Your task to perform on an android device: Go to Maps Image 0: 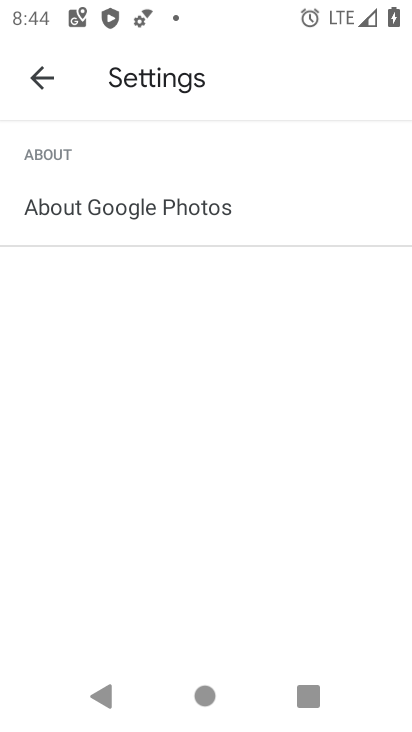
Step 0: press back button
Your task to perform on an android device: Go to Maps Image 1: 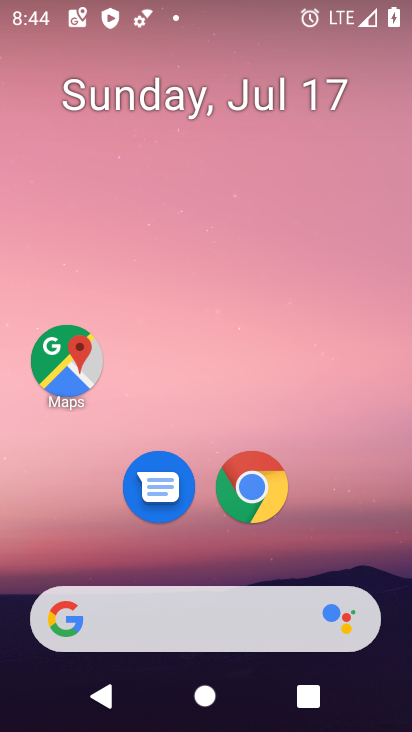
Step 1: click (59, 351)
Your task to perform on an android device: Go to Maps Image 2: 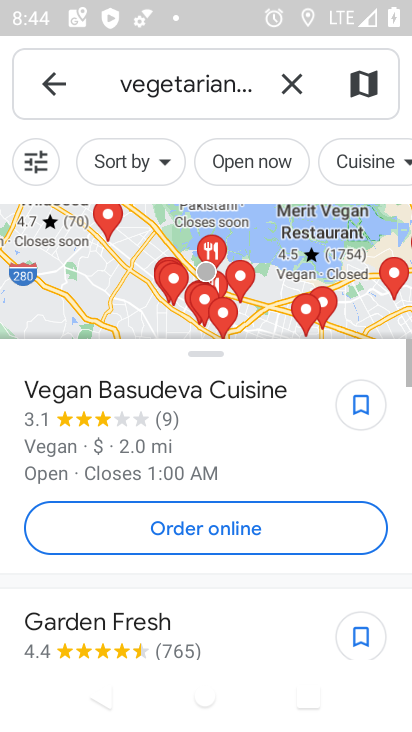
Step 2: task complete